Your task to perform on an android device: Go to Yahoo.com Image 0: 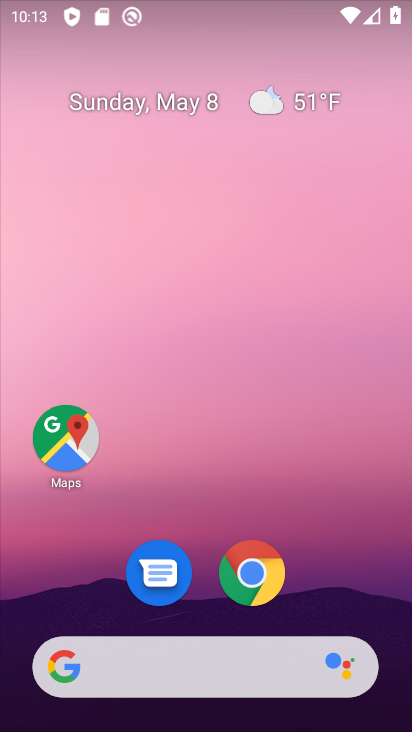
Step 0: drag from (192, 645) to (165, 272)
Your task to perform on an android device: Go to Yahoo.com Image 1: 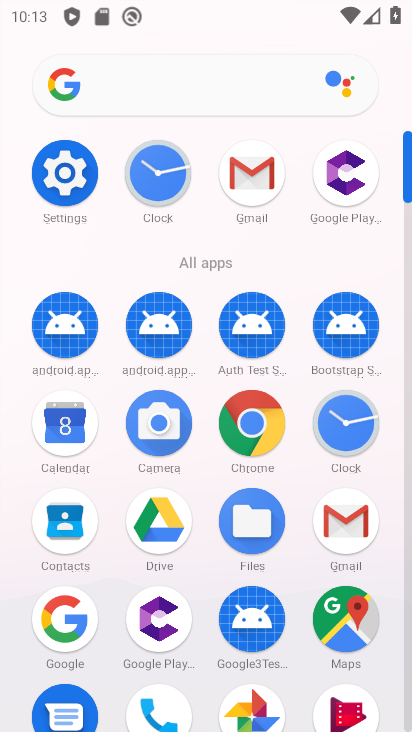
Step 1: click (245, 434)
Your task to perform on an android device: Go to Yahoo.com Image 2: 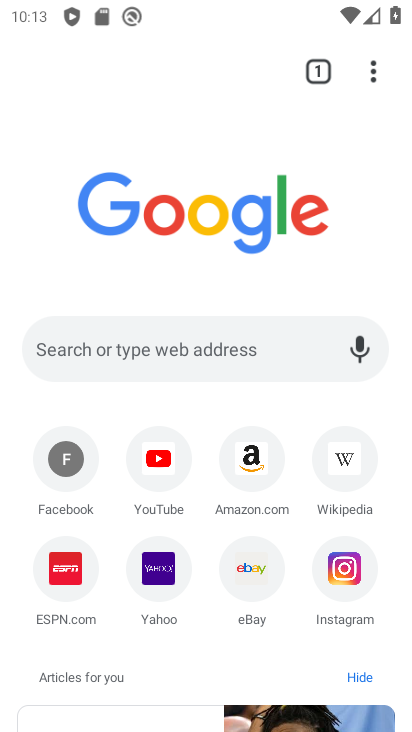
Step 2: click (154, 581)
Your task to perform on an android device: Go to Yahoo.com Image 3: 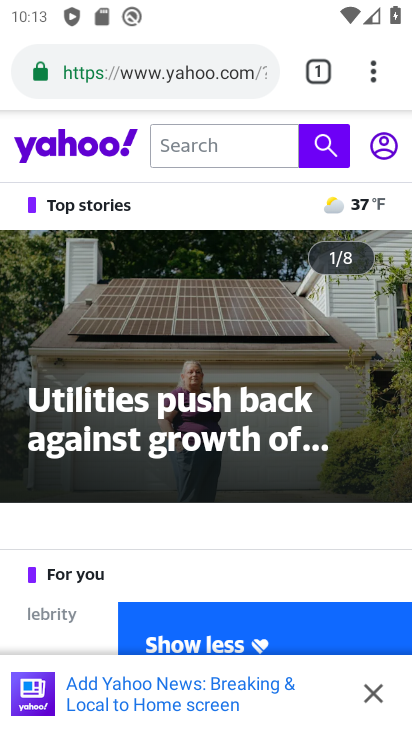
Step 3: click (373, 691)
Your task to perform on an android device: Go to Yahoo.com Image 4: 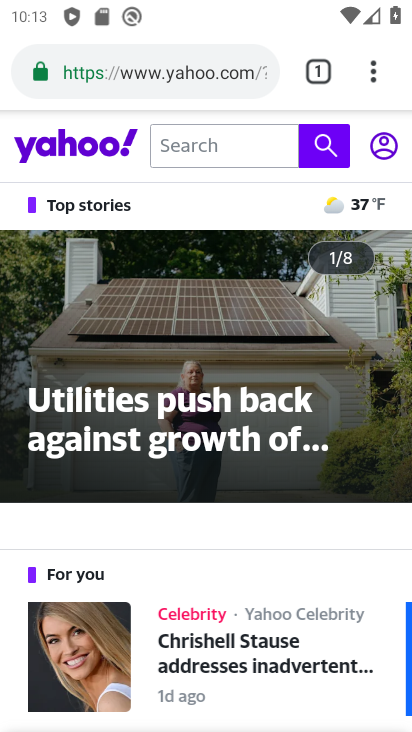
Step 4: task complete